Your task to perform on an android device: turn off translation in the chrome app Image 0: 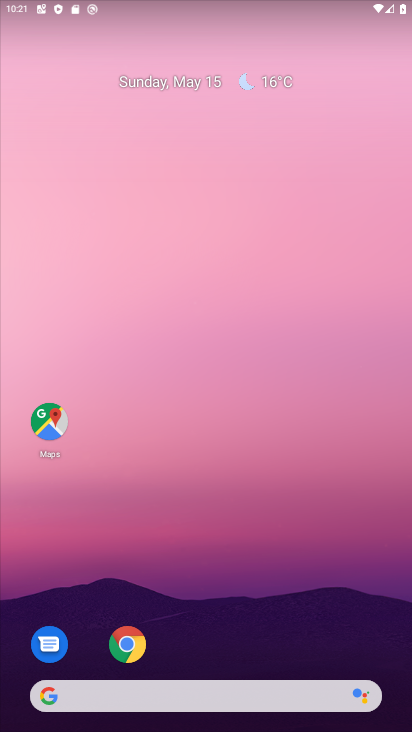
Step 0: click (137, 641)
Your task to perform on an android device: turn off translation in the chrome app Image 1: 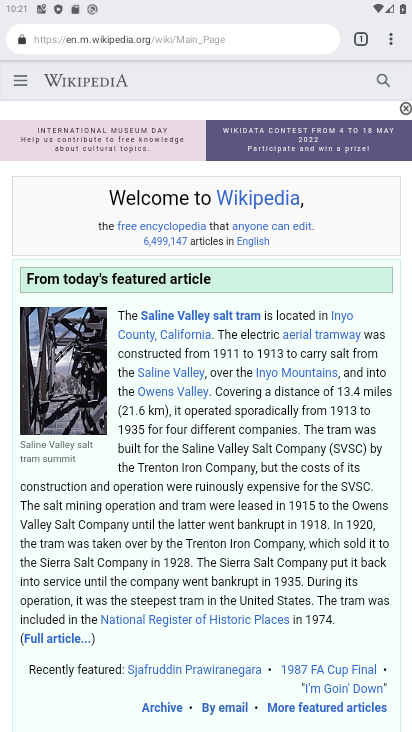
Step 1: click (394, 41)
Your task to perform on an android device: turn off translation in the chrome app Image 2: 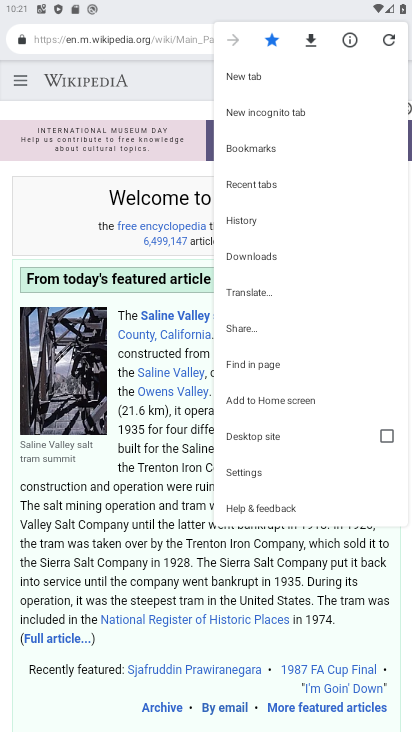
Step 2: click (279, 469)
Your task to perform on an android device: turn off translation in the chrome app Image 3: 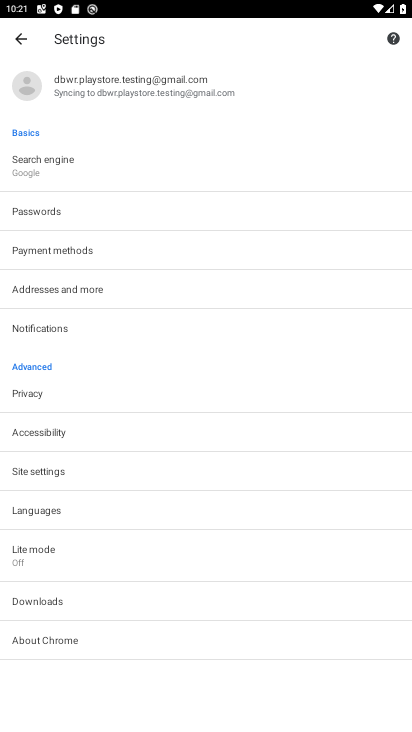
Step 3: click (144, 515)
Your task to perform on an android device: turn off translation in the chrome app Image 4: 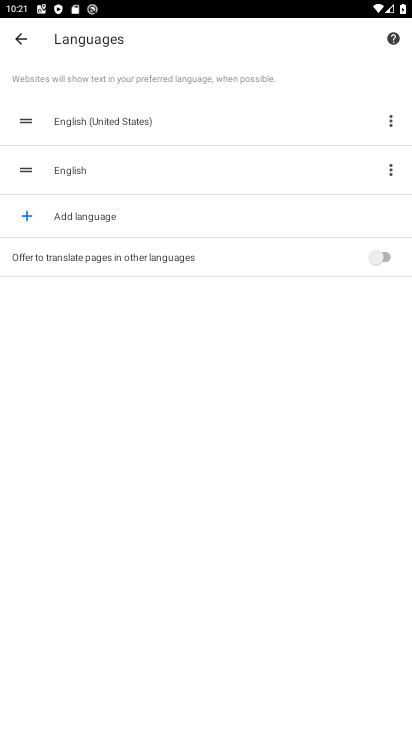
Step 4: task complete